Your task to perform on an android device: Show me popular games on the Play Store Image 0: 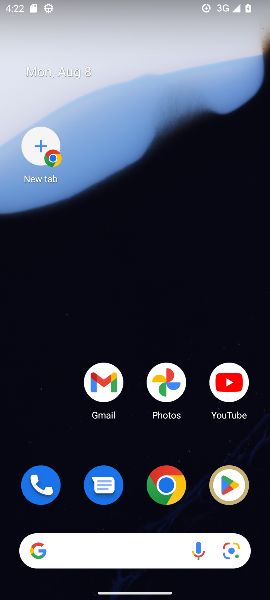
Step 0: drag from (124, 314) to (136, 143)
Your task to perform on an android device: Show me popular games on the Play Store Image 1: 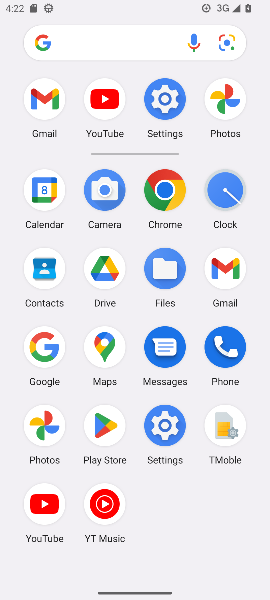
Step 1: click (98, 423)
Your task to perform on an android device: Show me popular games on the Play Store Image 2: 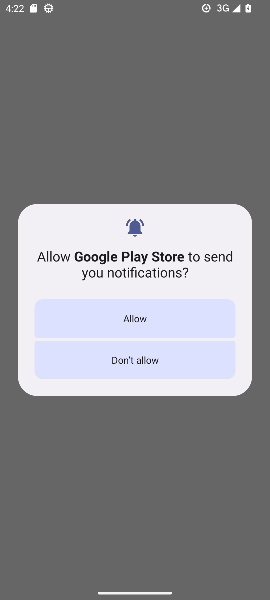
Step 2: click (122, 312)
Your task to perform on an android device: Show me popular games on the Play Store Image 3: 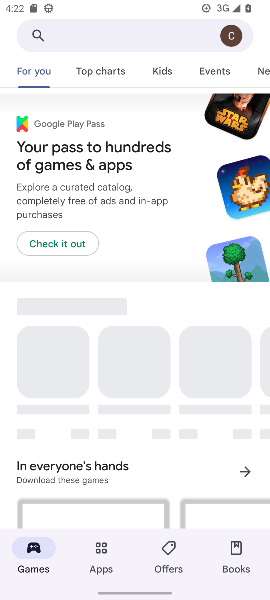
Step 3: click (132, 318)
Your task to perform on an android device: Show me popular games on the Play Store Image 4: 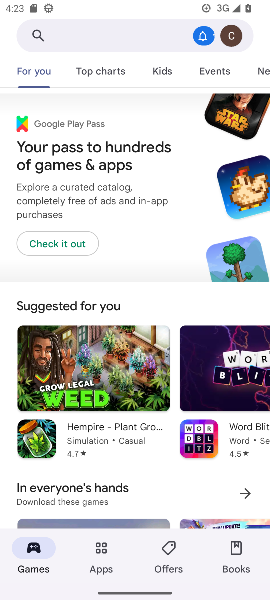
Step 4: click (61, 50)
Your task to perform on an android device: Show me popular games on the Play Store Image 5: 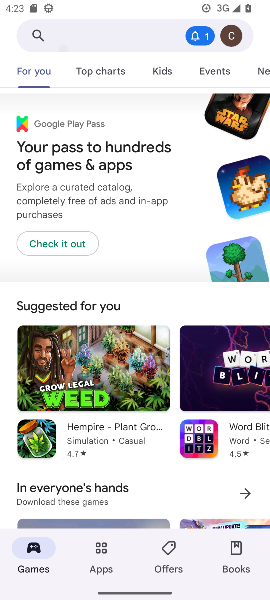
Step 5: click (59, 44)
Your task to perform on an android device: Show me popular games on the Play Store Image 6: 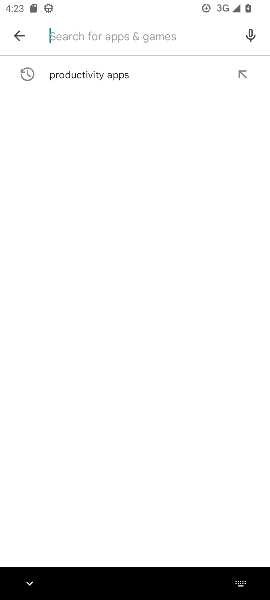
Step 6: click (47, 32)
Your task to perform on an android device: Show me popular games on the Play Store Image 7: 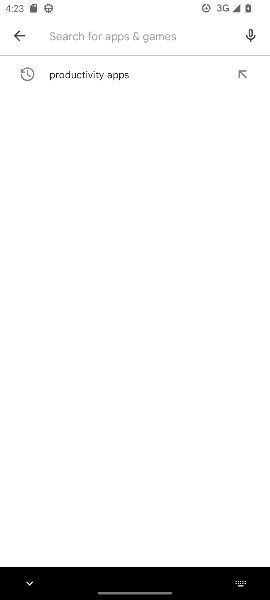
Step 7: click (49, 35)
Your task to perform on an android device: Show me popular games on the Play Store Image 8: 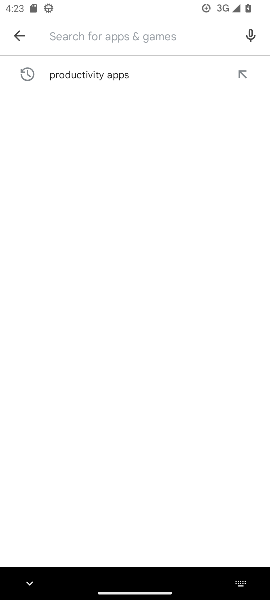
Step 8: type "popular games"
Your task to perform on an android device: Show me popular games on the Play Store Image 9: 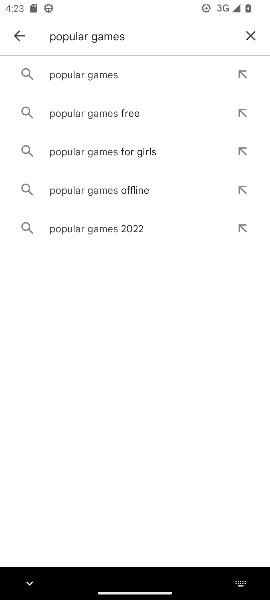
Step 9: click (71, 79)
Your task to perform on an android device: Show me popular games on the Play Store Image 10: 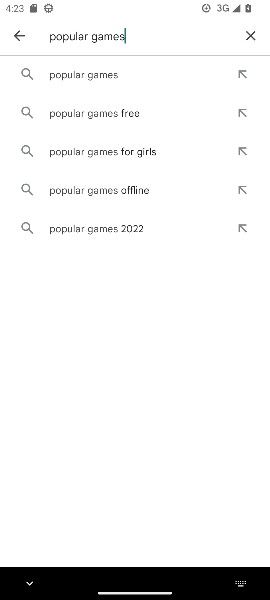
Step 10: click (70, 78)
Your task to perform on an android device: Show me popular games on the Play Store Image 11: 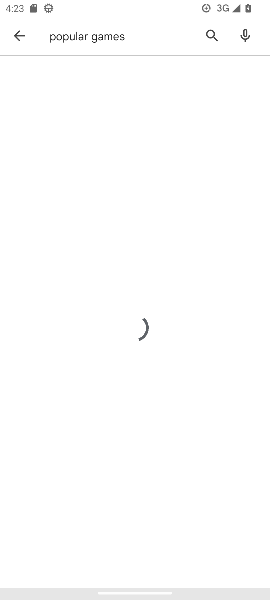
Step 11: click (70, 78)
Your task to perform on an android device: Show me popular games on the Play Store Image 12: 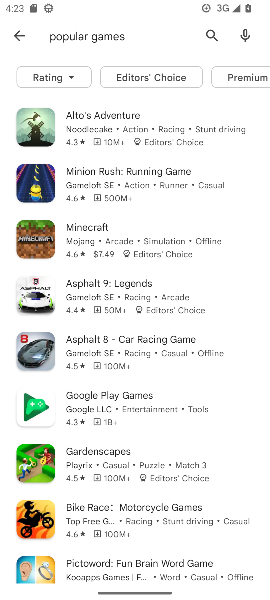
Step 12: task complete